Your task to perform on an android device: What's the weather going to be this weekend? Image 0: 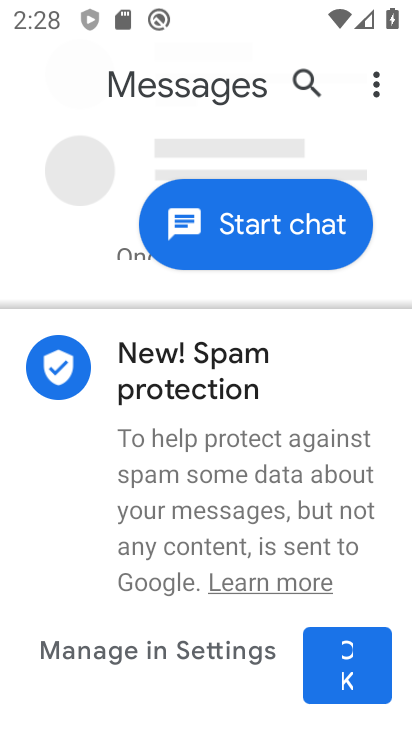
Step 0: press back button
Your task to perform on an android device: What's the weather going to be this weekend? Image 1: 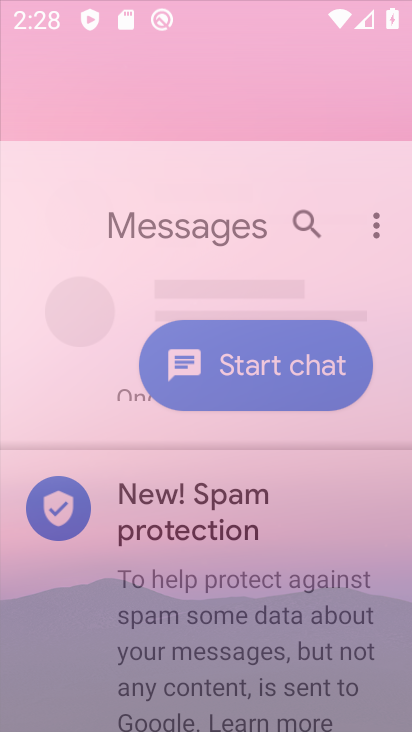
Step 1: press back button
Your task to perform on an android device: What's the weather going to be this weekend? Image 2: 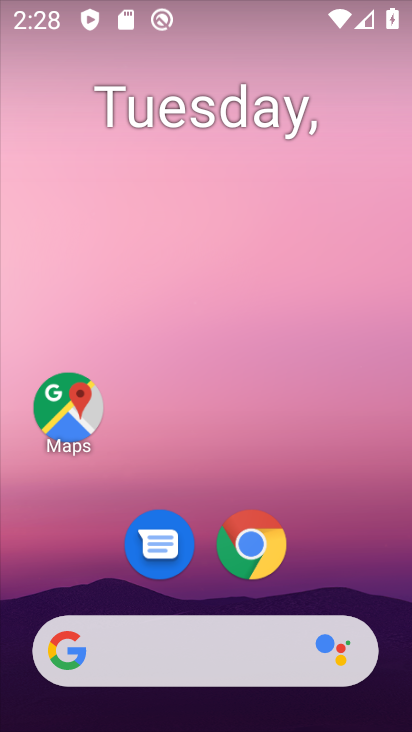
Step 2: click (146, 641)
Your task to perform on an android device: What's the weather going to be this weekend? Image 3: 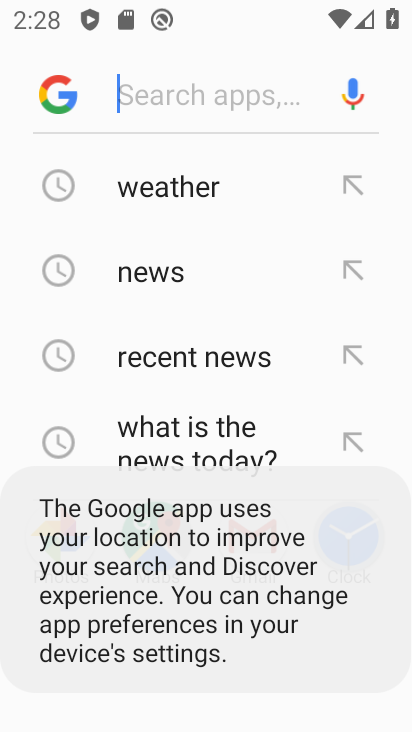
Step 3: click (165, 180)
Your task to perform on an android device: What's the weather going to be this weekend? Image 4: 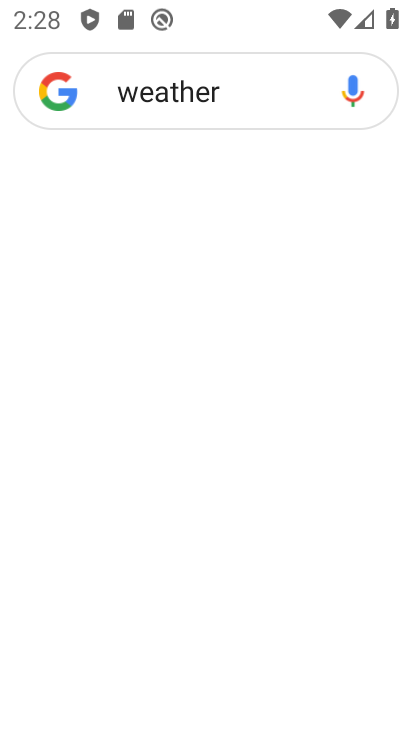
Step 4: click (164, 187)
Your task to perform on an android device: What's the weather going to be this weekend? Image 5: 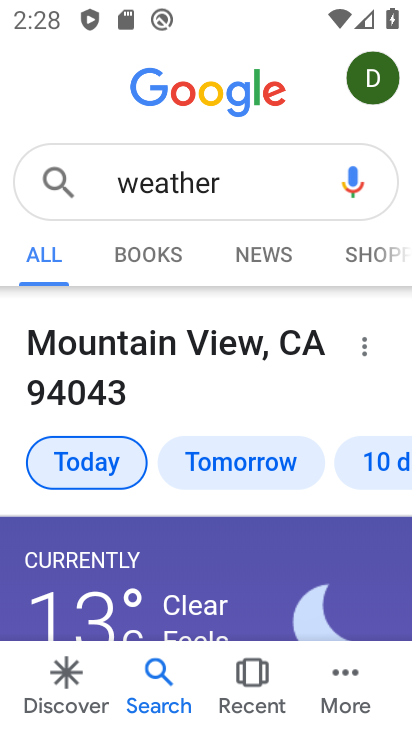
Step 5: click (371, 454)
Your task to perform on an android device: What's the weather going to be this weekend? Image 6: 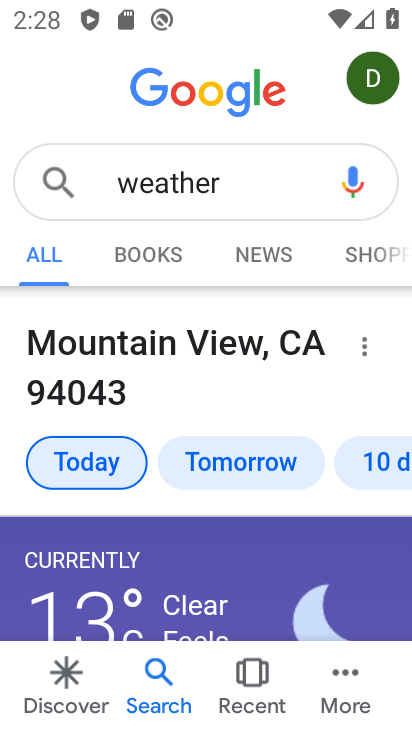
Step 6: drag from (215, 593) to (283, 302)
Your task to perform on an android device: What's the weather going to be this weekend? Image 7: 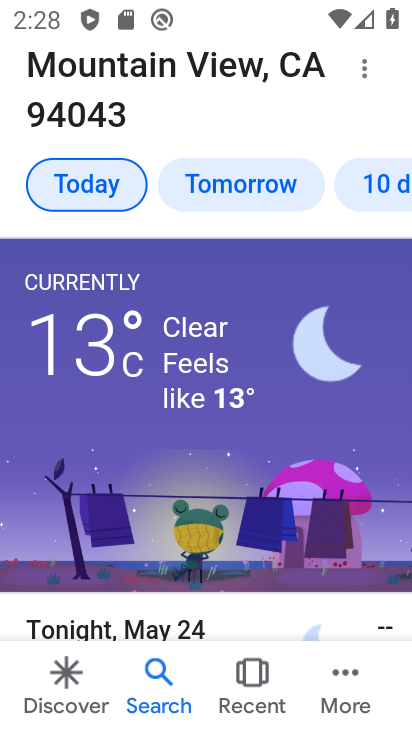
Step 7: click (388, 233)
Your task to perform on an android device: What's the weather going to be this weekend? Image 8: 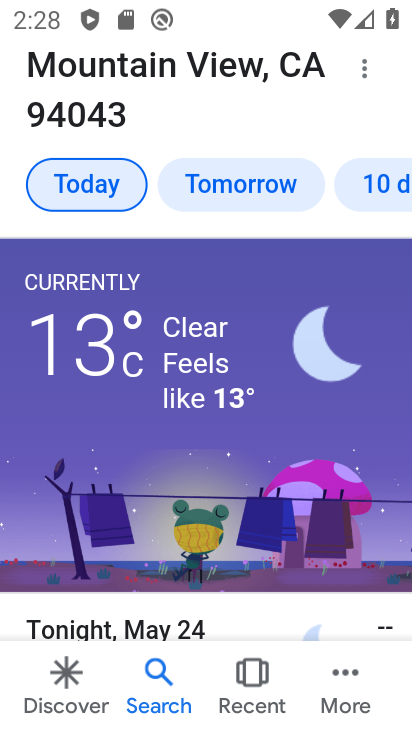
Step 8: click (380, 197)
Your task to perform on an android device: What's the weather going to be this weekend? Image 9: 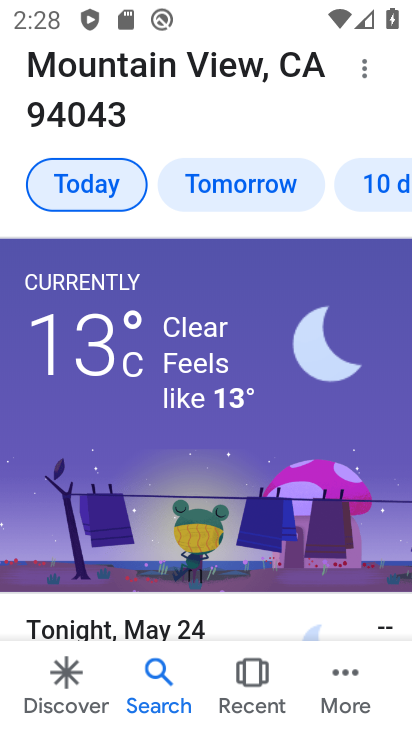
Step 9: click (383, 178)
Your task to perform on an android device: What's the weather going to be this weekend? Image 10: 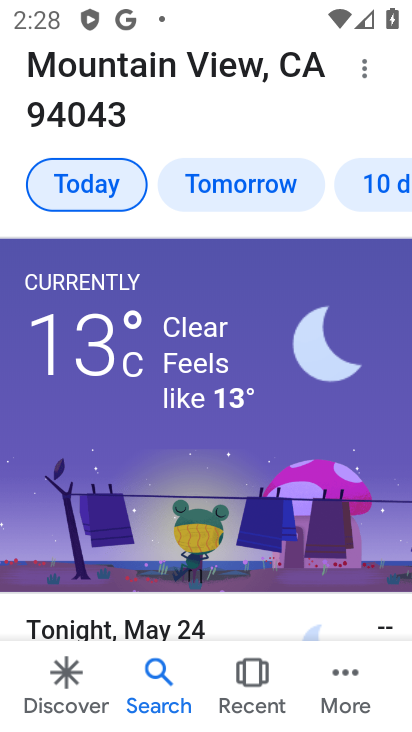
Step 10: task complete